Your task to perform on an android device: When is my next meeting? Image 0: 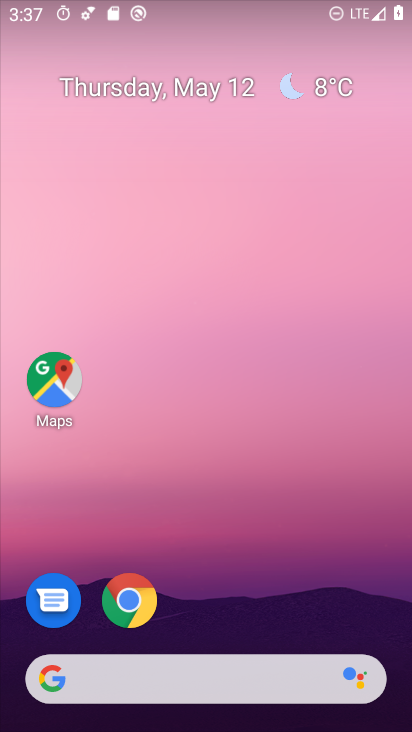
Step 0: drag from (206, 724) to (211, 186)
Your task to perform on an android device: When is my next meeting? Image 1: 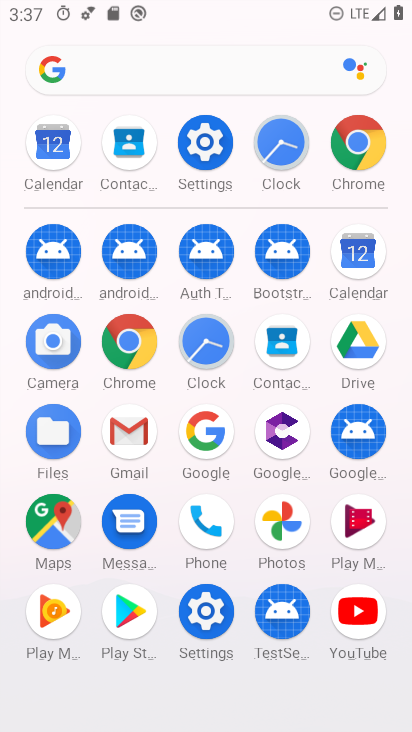
Step 1: click (354, 263)
Your task to perform on an android device: When is my next meeting? Image 2: 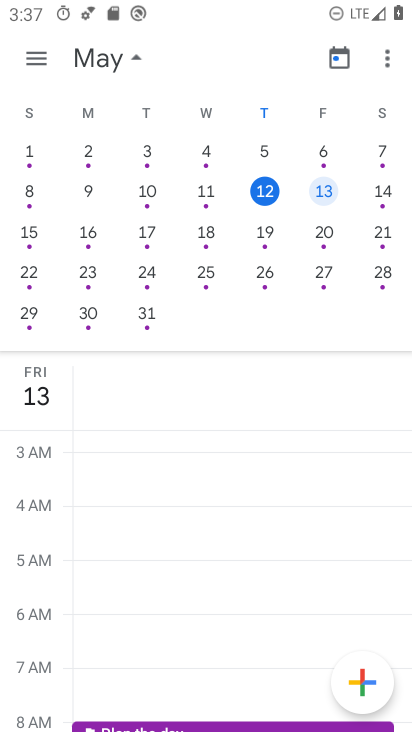
Step 2: click (320, 192)
Your task to perform on an android device: When is my next meeting? Image 3: 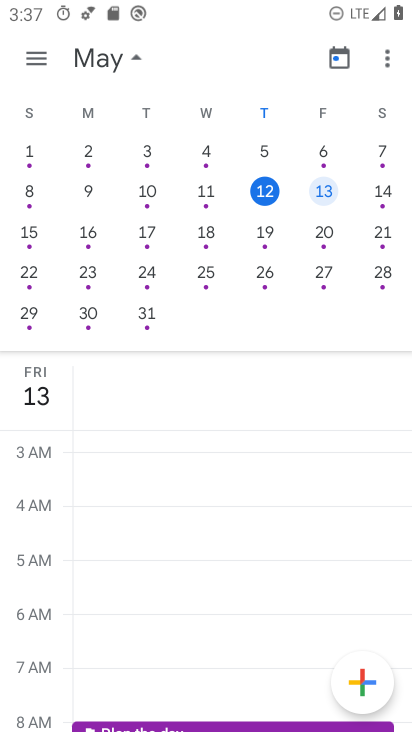
Step 3: click (134, 58)
Your task to perform on an android device: When is my next meeting? Image 4: 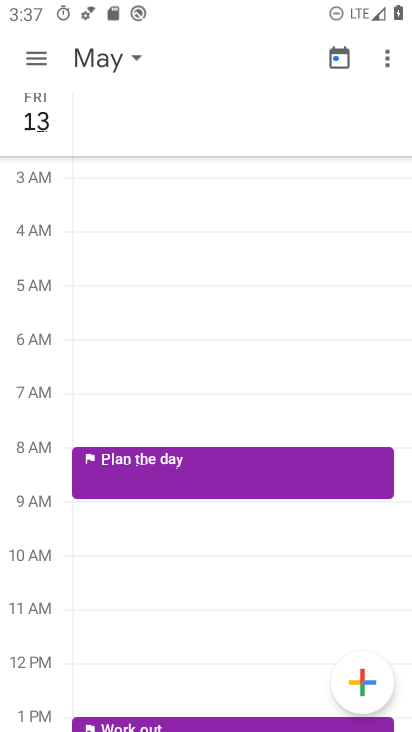
Step 4: task complete